Your task to perform on an android device: Go to sound settings Image 0: 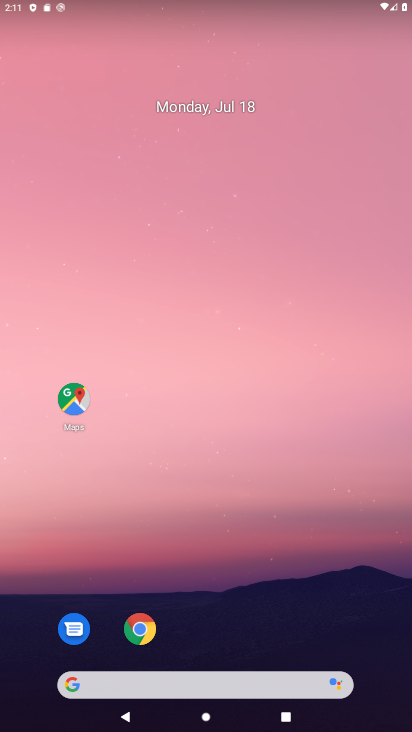
Step 0: drag from (155, 666) to (213, 150)
Your task to perform on an android device: Go to sound settings Image 1: 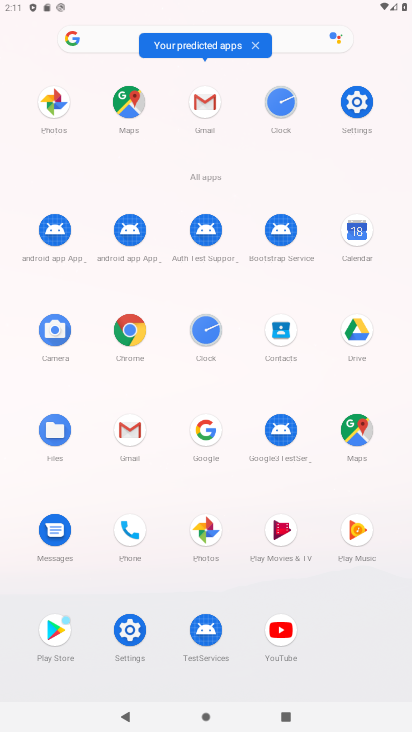
Step 1: click (349, 107)
Your task to perform on an android device: Go to sound settings Image 2: 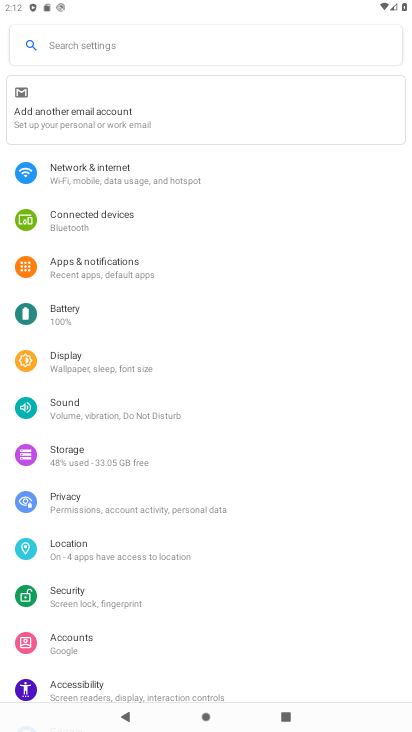
Step 2: click (54, 405)
Your task to perform on an android device: Go to sound settings Image 3: 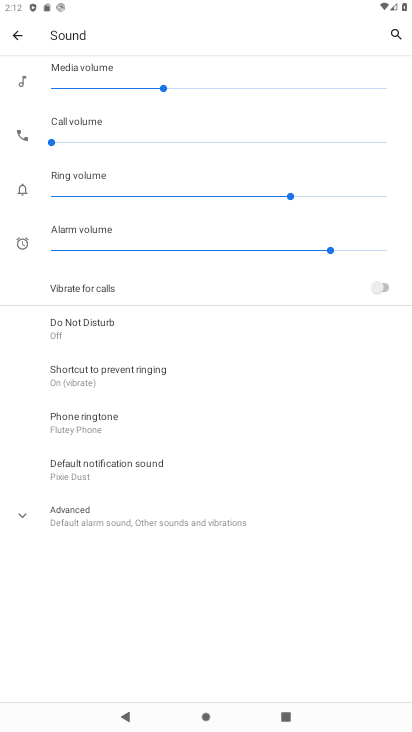
Step 3: click (84, 516)
Your task to perform on an android device: Go to sound settings Image 4: 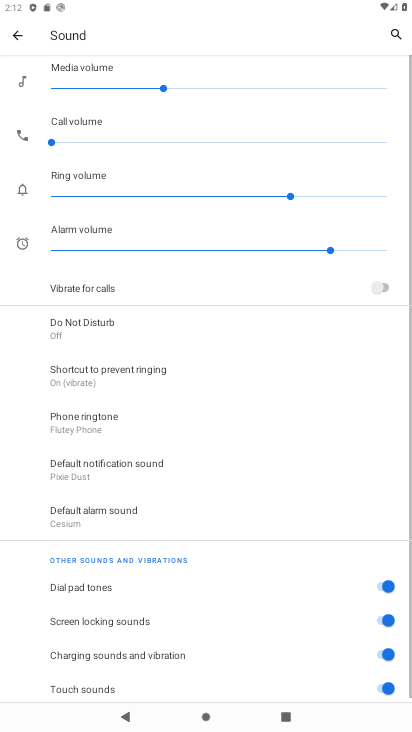
Step 4: task complete